Your task to perform on an android device: Open the phone app and click the voicemail tab. Image 0: 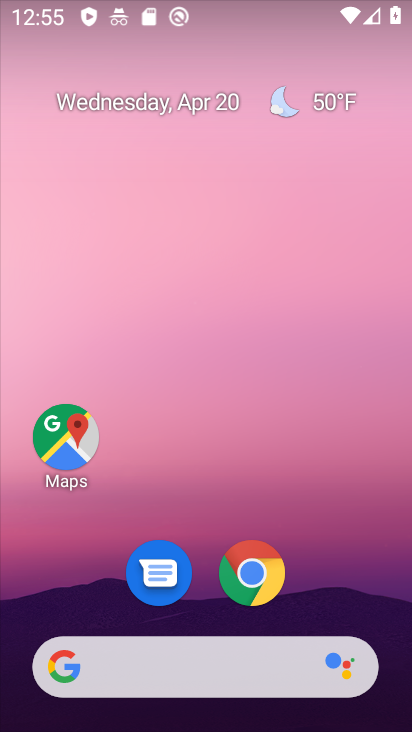
Step 0: drag from (361, 609) to (364, 11)
Your task to perform on an android device: Open the phone app and click the voicemail tab. Image 1: 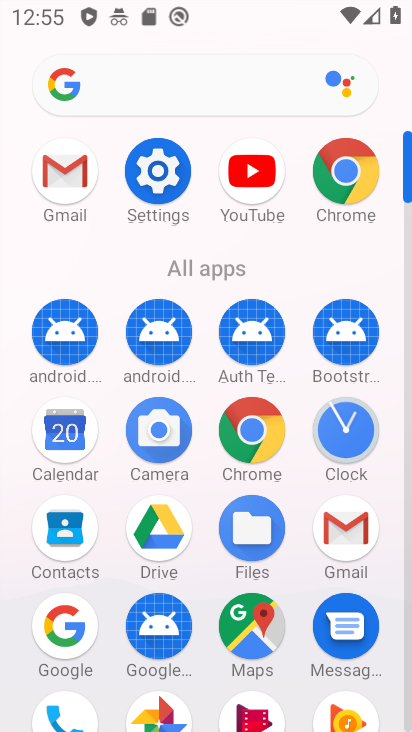
Step 1: click (58, 718)
Your task to perform on an android device: Open the phone app and click the voicemail tab. Image 2: 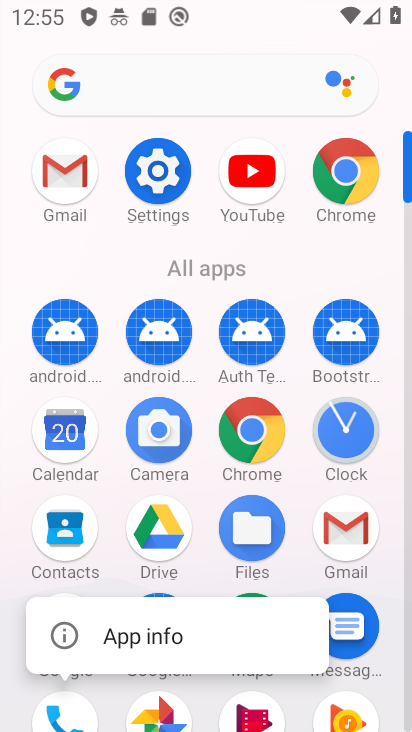
Step 2: click (58, 717)
Your task to perform on an android device: Open the phone app and click the voicemail tab. Image 3: 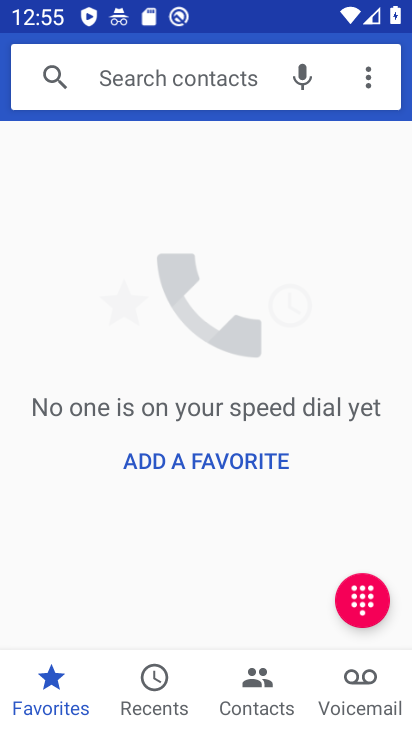
Step 3: click (366, 707)
Your task to perform on an android device: Open the phone app and click the voicemail tab. Image 4: 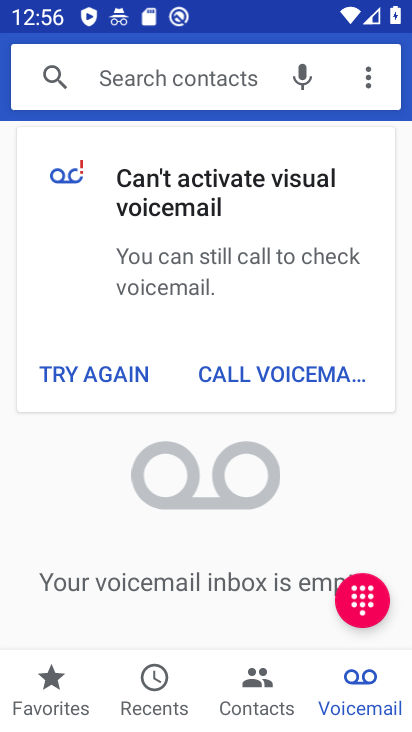
Step 4: task complete